Your task to perform on an android device: What is the recent news? Image 0: 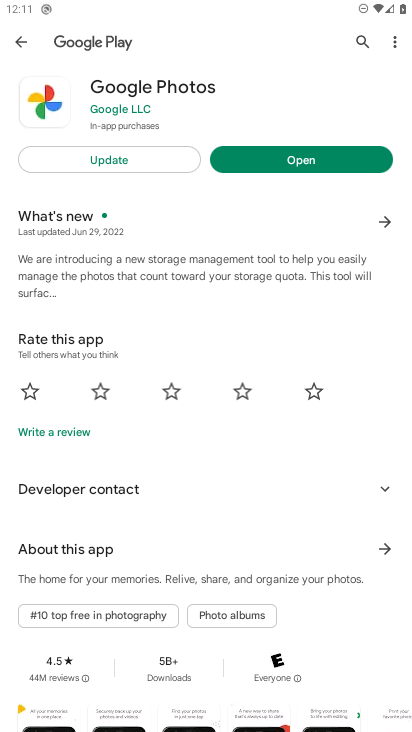
Step 0: press home button
Your task to perform on an android device: What is the recent news? Image 1: 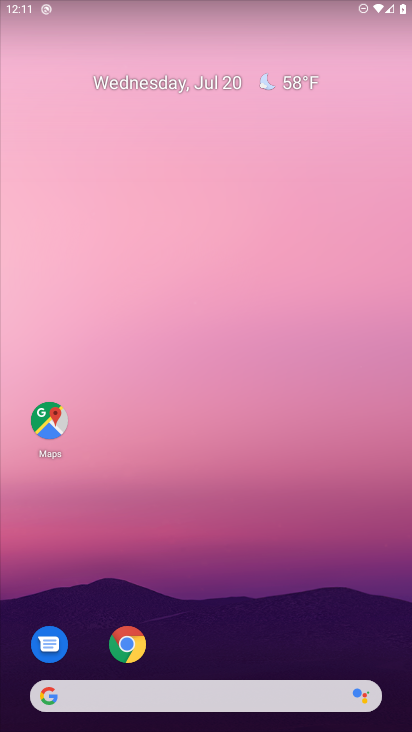
Step 1: click (145, 683)
Your task to perform on an android device: What is the recent news? Image 2: 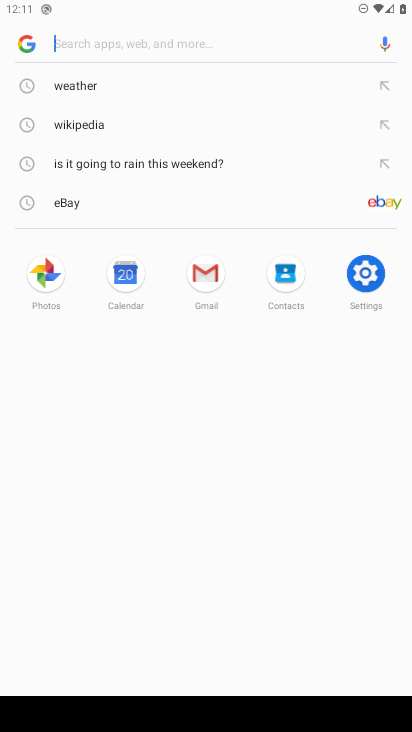
Step 2: type "What is the recent news?"
Your task to perform on an android device: What is the recent news? Image 3: 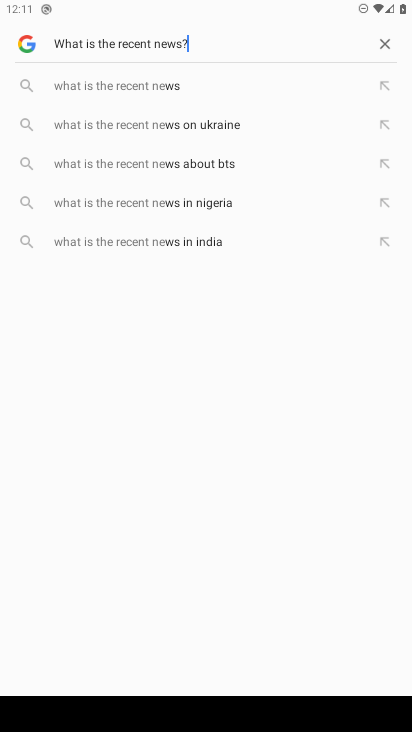
Step 3: type ""
Your task to perform on an android device: What is the recent news? Image 4: 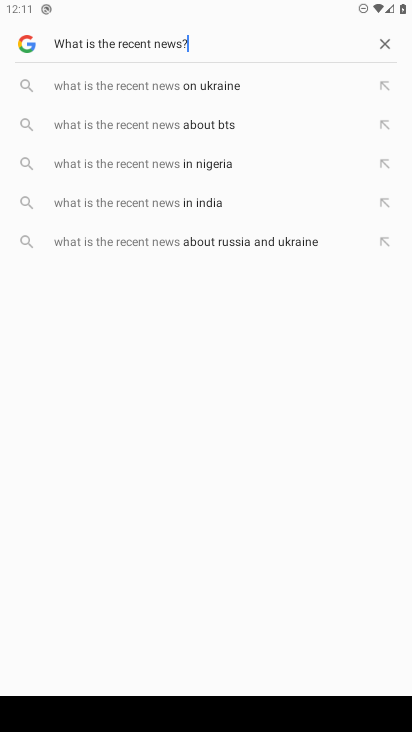
Step 4: type ""
Your task to perform on an android device: What is the recent news? Image 5: 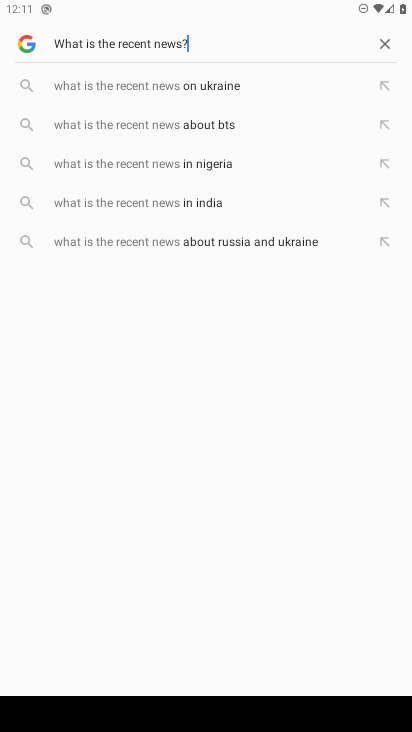
Step 5: type ""
Your task to perform on an android device: What is the recent news? Image 6: 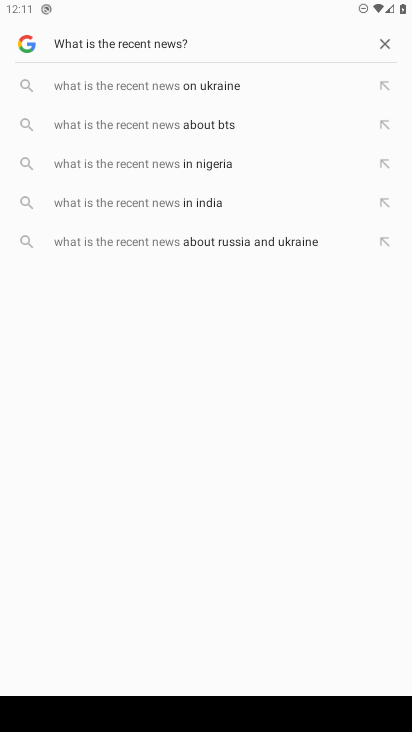
Step 6: task complete